Your task to perform on an android device: toggle notification dots Image 0: 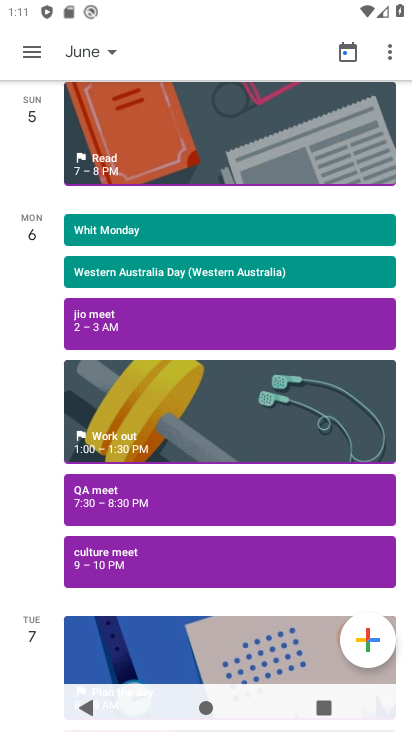
Step 0: press home button
Your task to perform on an android device: toggle notification dots Image 1: 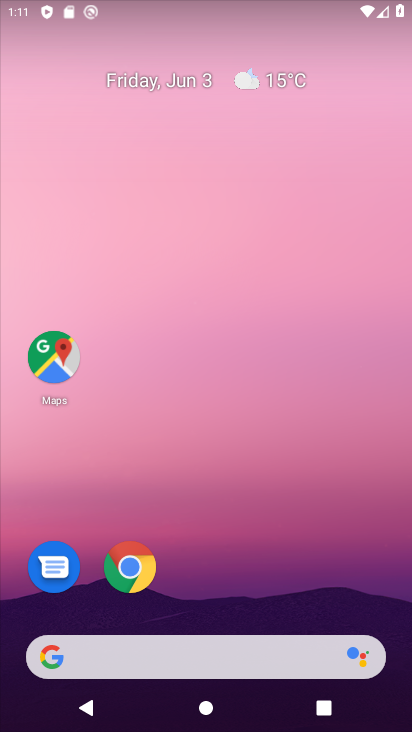
Step 1: drag from (280, 535) to (319, 61)
Your task to perform on an android device: toggle notification dots Image 2: 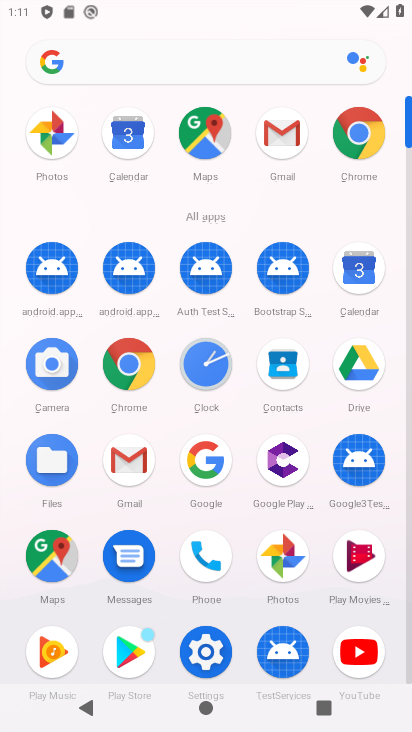
Step 2: click (202, 646)
Your task to perform on an android device: toggle notification dots Image 3: 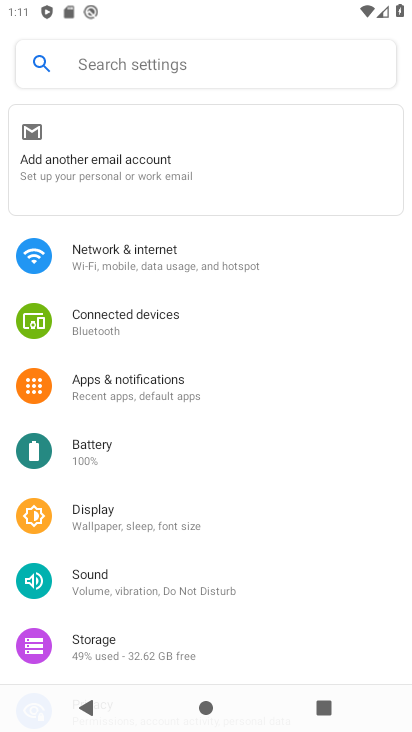
Step 3: click (114, 387)
Your task to perform on an android device: toggle notification dots Image 4: 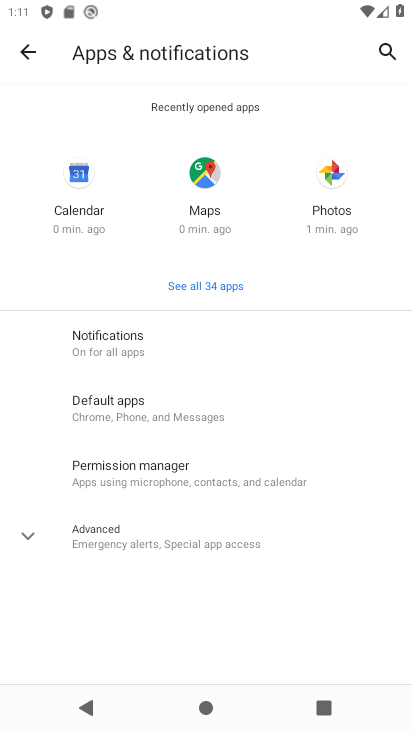
Step 4: click (106, 530)
Your task to perform on an android device: toggle notification dots Image 5: 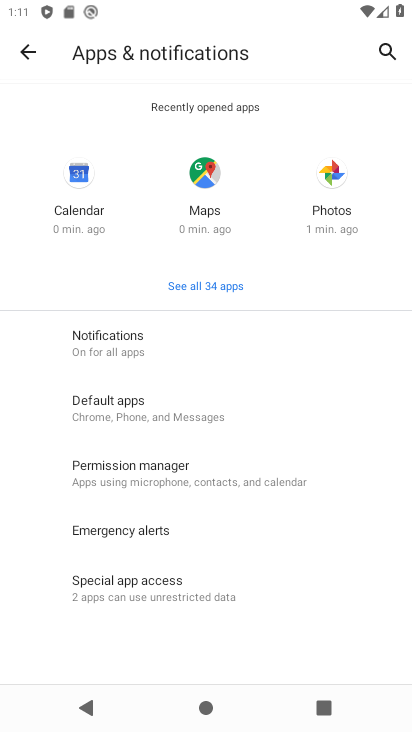
Step 5: click (119, 344)
Your task to perform on an android device: toggle notification dots Image 6: 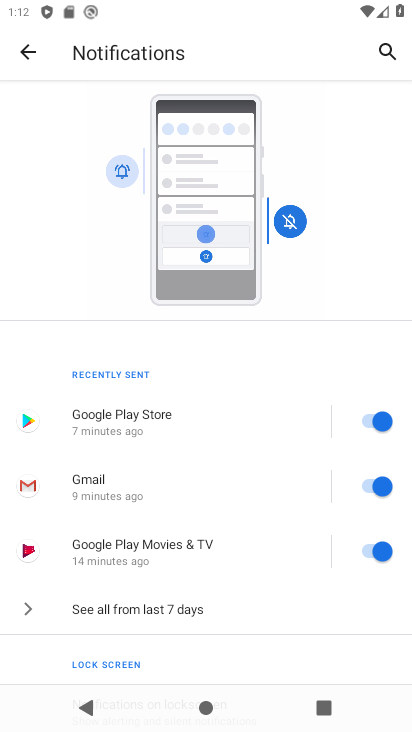
Step 6: drag from (195, 600) to (192, 48)
Your task to perform on an android device: toggle notification dots Image 7: 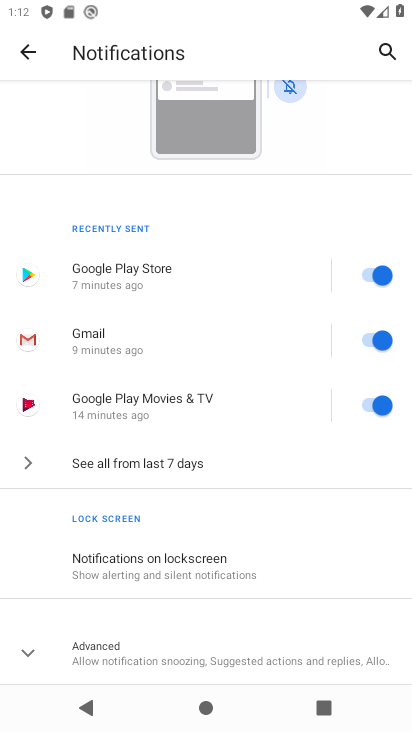
Step 7: click (142, 657)
Your task to perform on an android device: toggle notification dots Image 8: 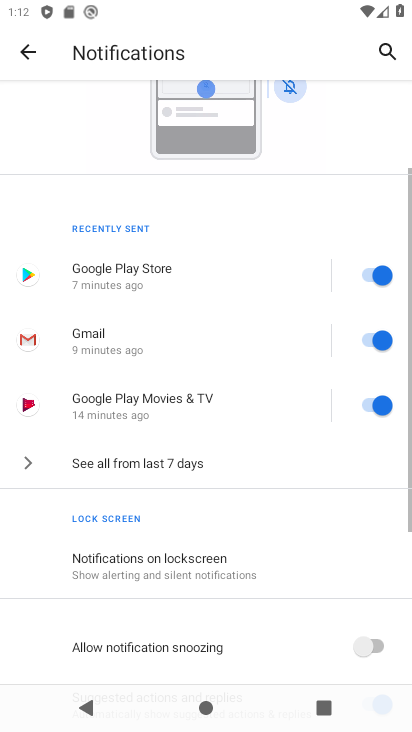
Step 8: drag from (263, 541) to (252, 136)
Your task to perform on an android device: toggle notification dots Image 9: 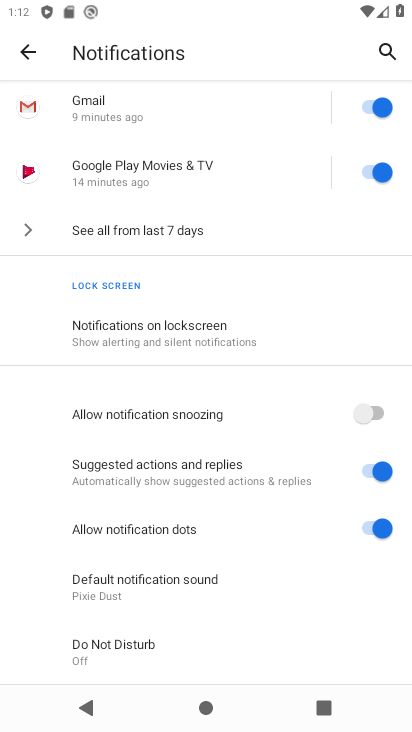
Step 9: click (377, 527)
Your task to perform on an android device: toggle notification dots Image 10: 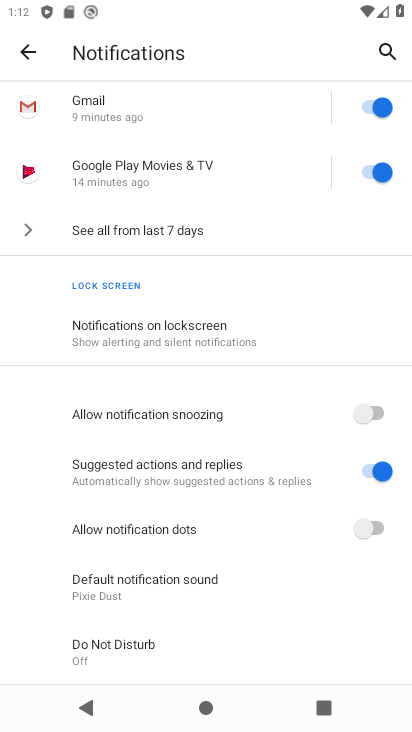
Step 10: task complete